Your task to perform on an android device: What's the weather going to be this weekend? Image 0: 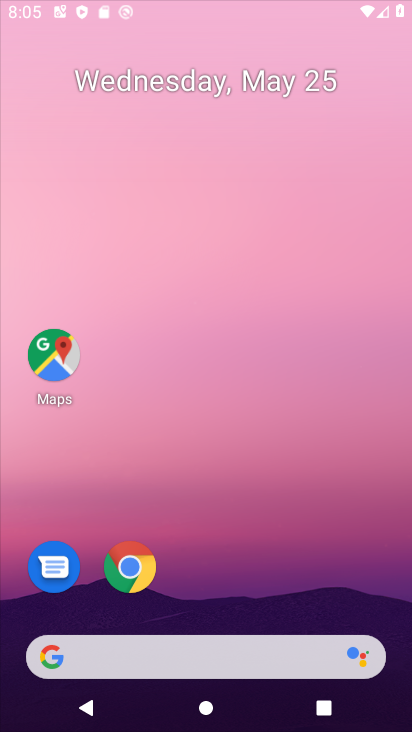
Step 0: drag from (268, 603) to (266, 466)
Your task to perform on an android device: What's the weather going to be this weekend? Image 1: 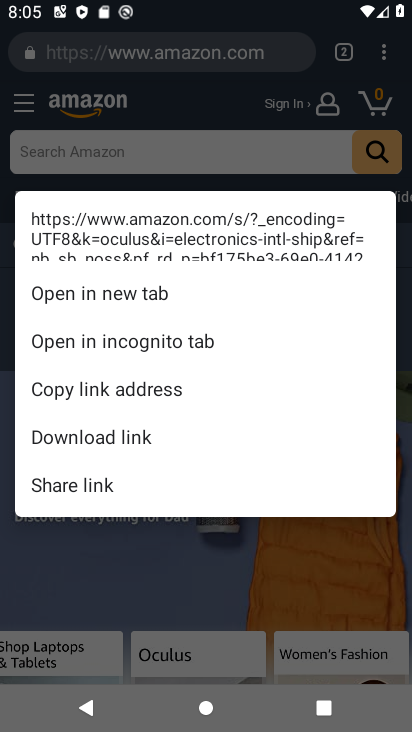
Step 1: press home button
Your task to perform on an android device: What's the weather going to be this weekend? Image 2: 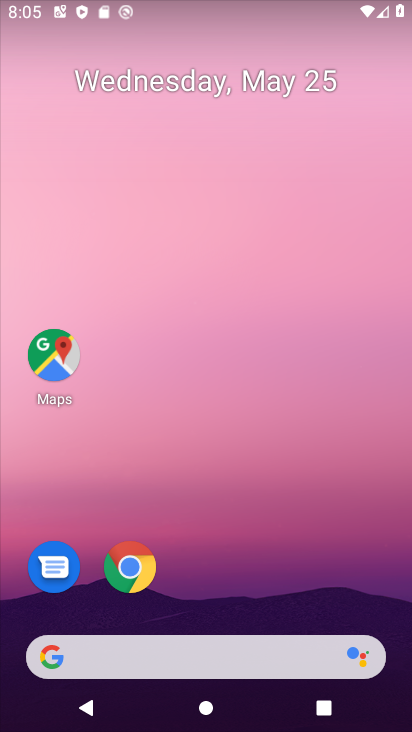
Step 2: press home button
Your task to perform on an android device: What's the weather going to be this weekend? Image 3: 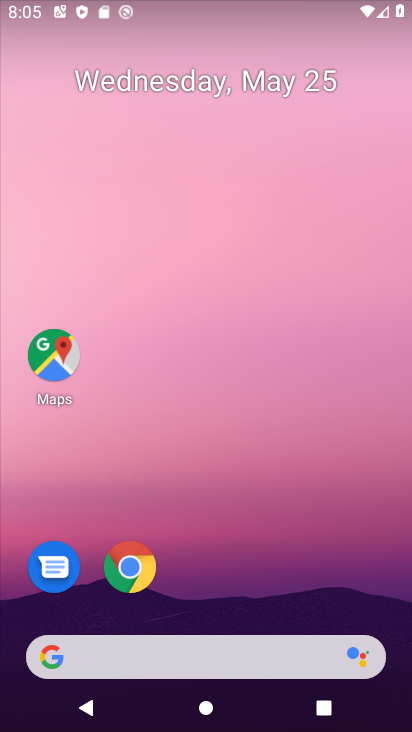
Step 3: drag from (282, 523) to (310, 20)
Your task to perform on an android device: What's the weather going to be this weekend? Image 4: 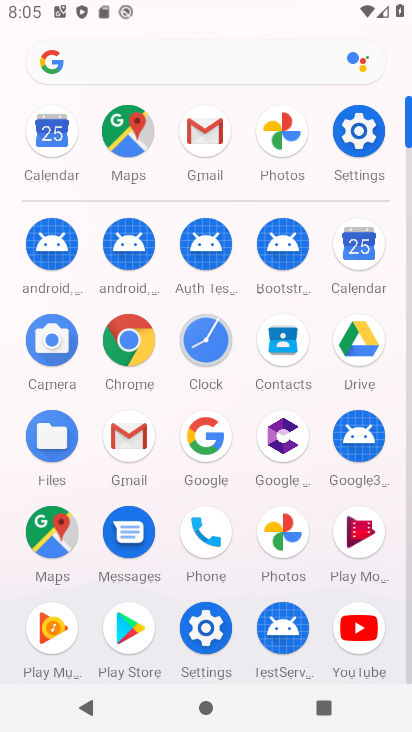
Step 4: click (359, 291)
Your task to perform on an android device: What's the weather going to be this weekend? Image 5: 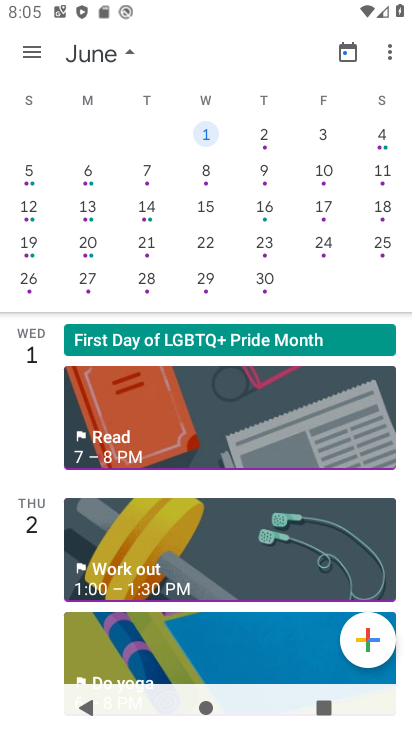
Step 5: task complete